Your task to perform on an android device: turn off wifi Image 0: 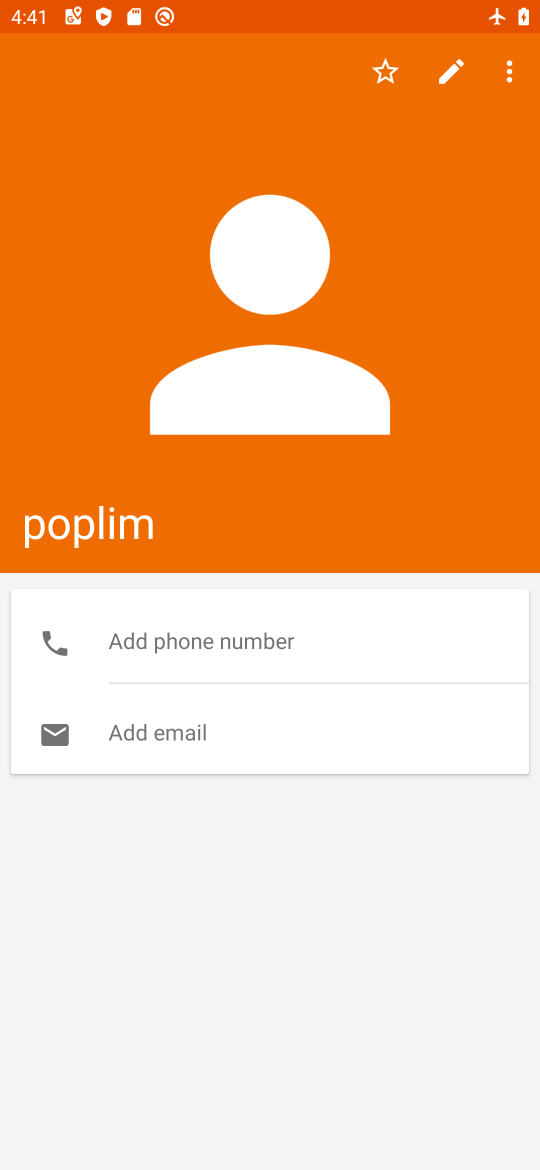
Step 0: press home button
Your task to perform on an android device: turn off wifi Image 1: 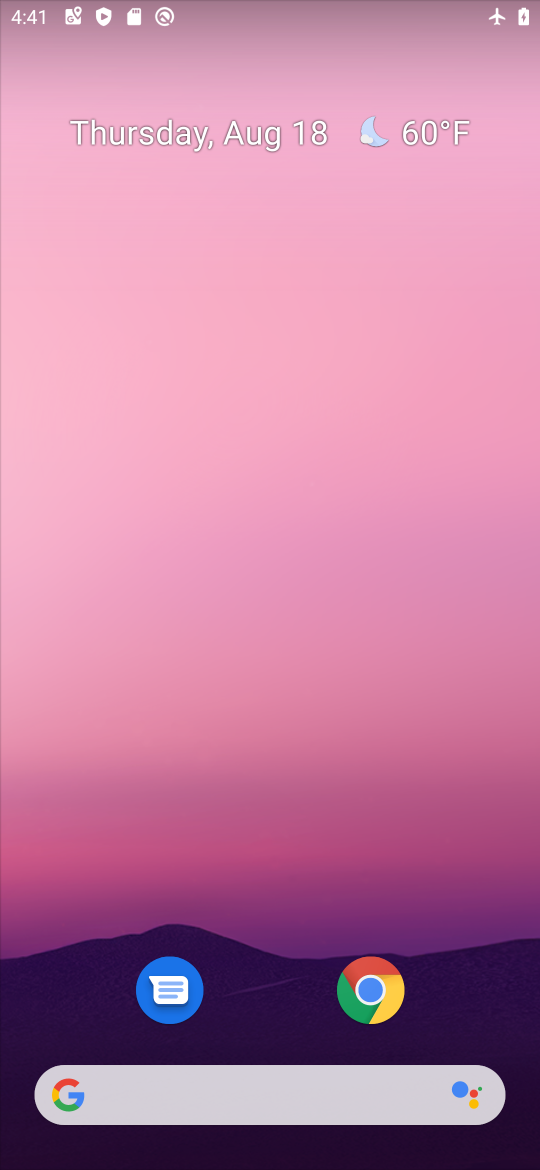
Step 1: drag from (241, 893) to (339, 216)
Your task to perform on an android device: turn off wifi Image 2: 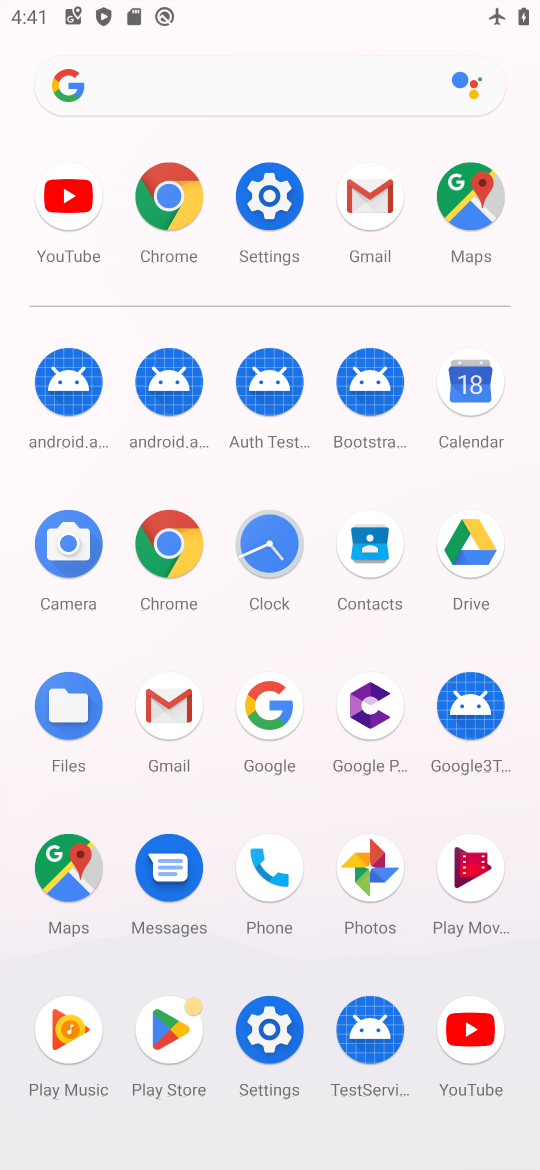
Step 2: click (269, 1033)
Your task to perform on an android device: turn off wifi Image 3: 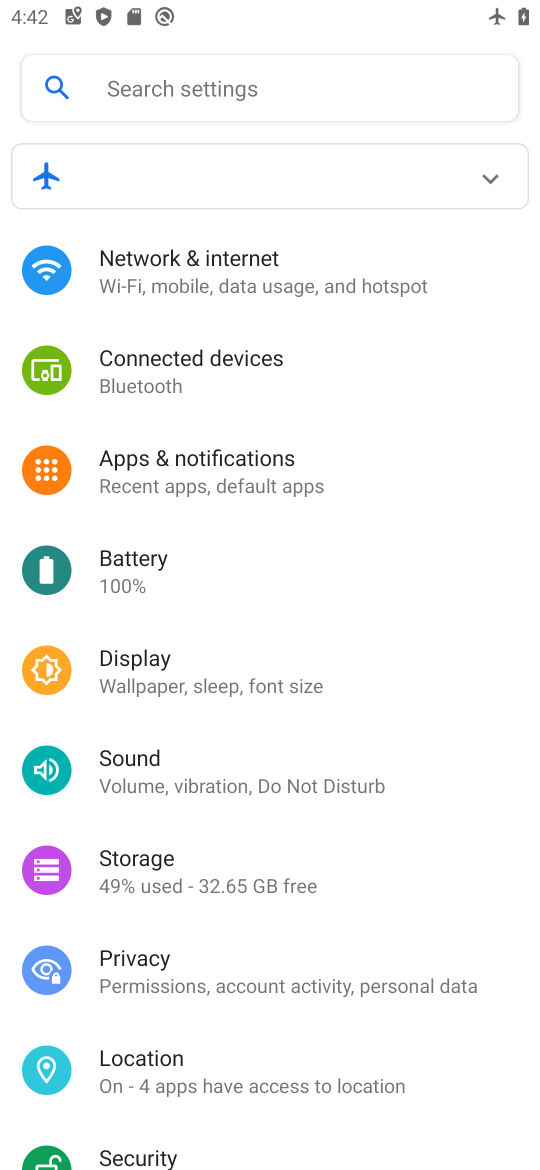
Step 3: click (308, 304)
Your task to perform on an android device: turn off wifi Image 4: 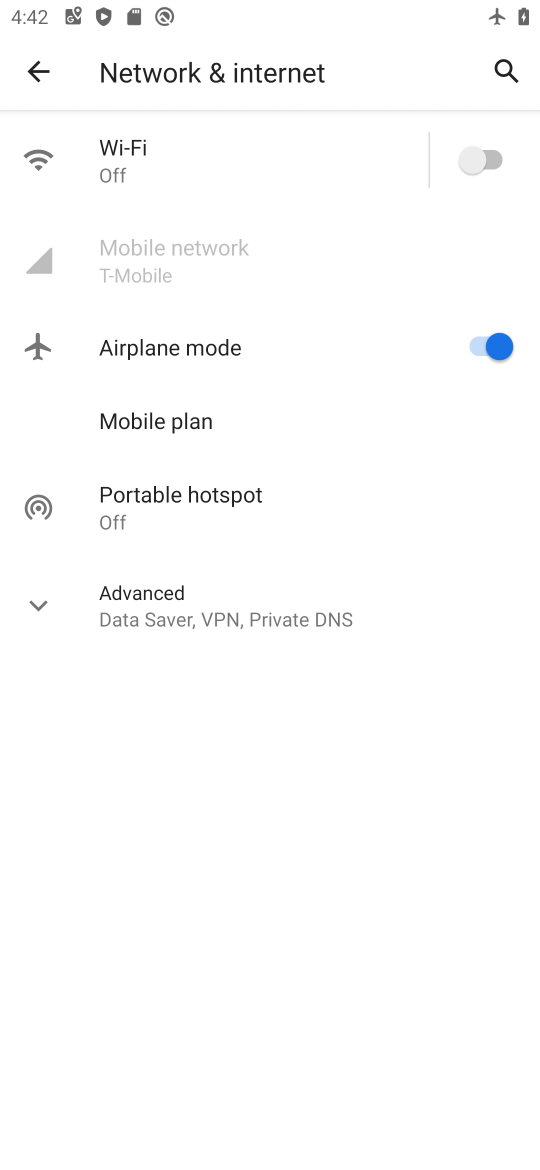
Step 4: task complete